Your task to perform on an android device: check battery use Image 0: 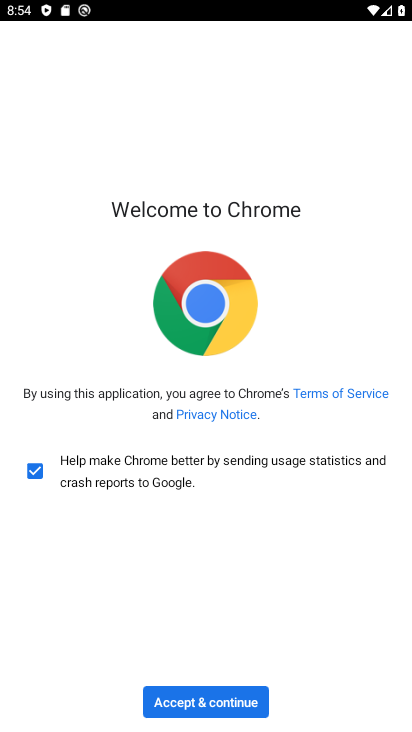
Step 0: press home button
Your task to perform on an android device: check battery use Image 1: 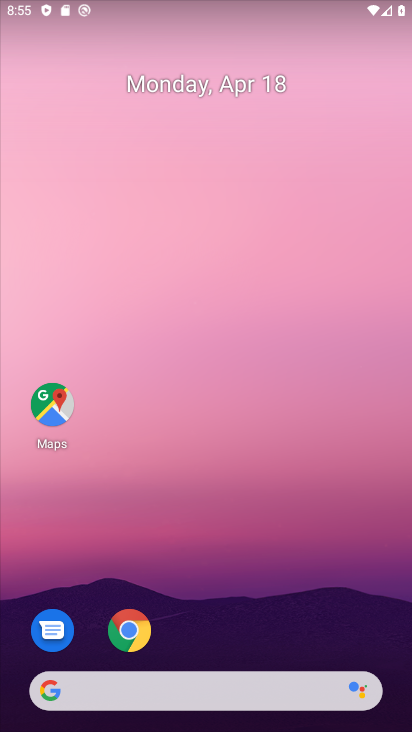
Step 1: drag from (249, 574) to (294, 87)
Your task to perform on an android device: check battery use Image 2: 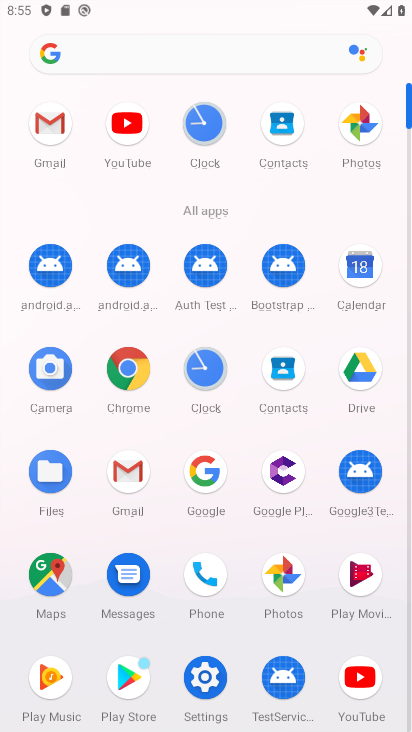
Step 2: click (202, 669)
Your task to perform on an android device: check battery use Image 3: 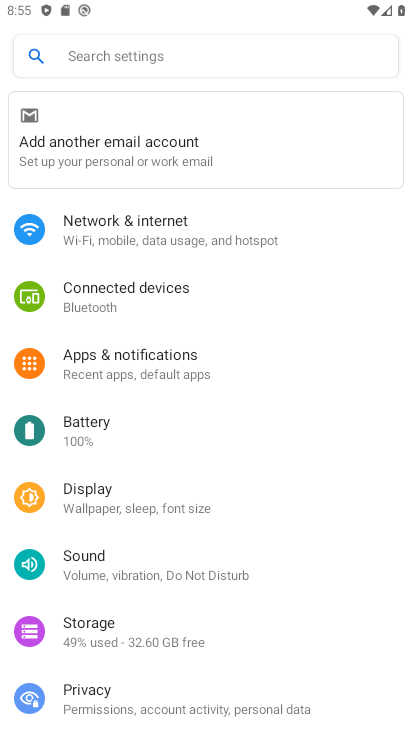
Step 3: click (155, 437)
Your task to perform on an android device: check battery use Image 4: 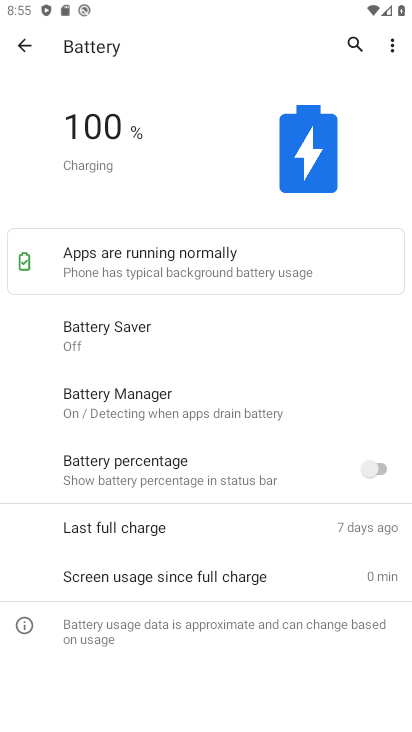
Step 4: click (388, 41)
Your task to perform on an android device: check battery use Image 5: 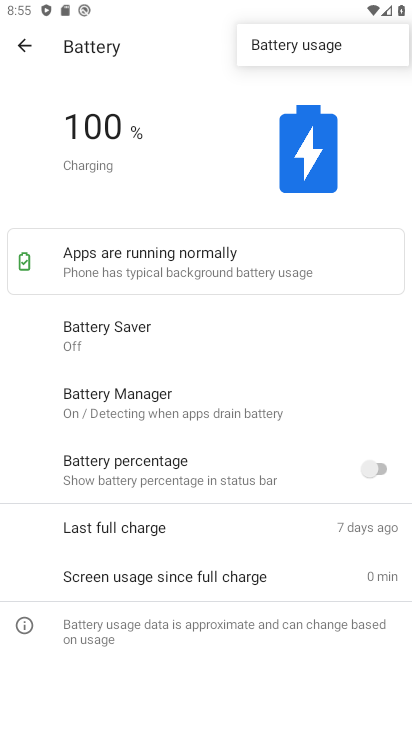
Step 5: click (326, 35)
Your task to perform on an android device: check battery use Image 6: 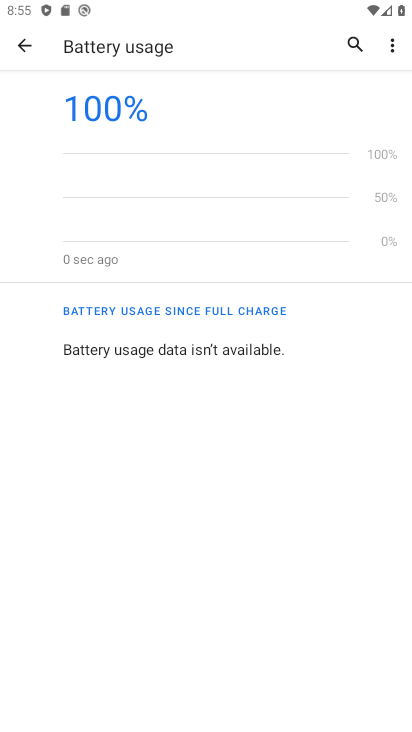
Step 6: task complete